Your task to perform on an android device: Play the last video I watched on Youtube Image 0: 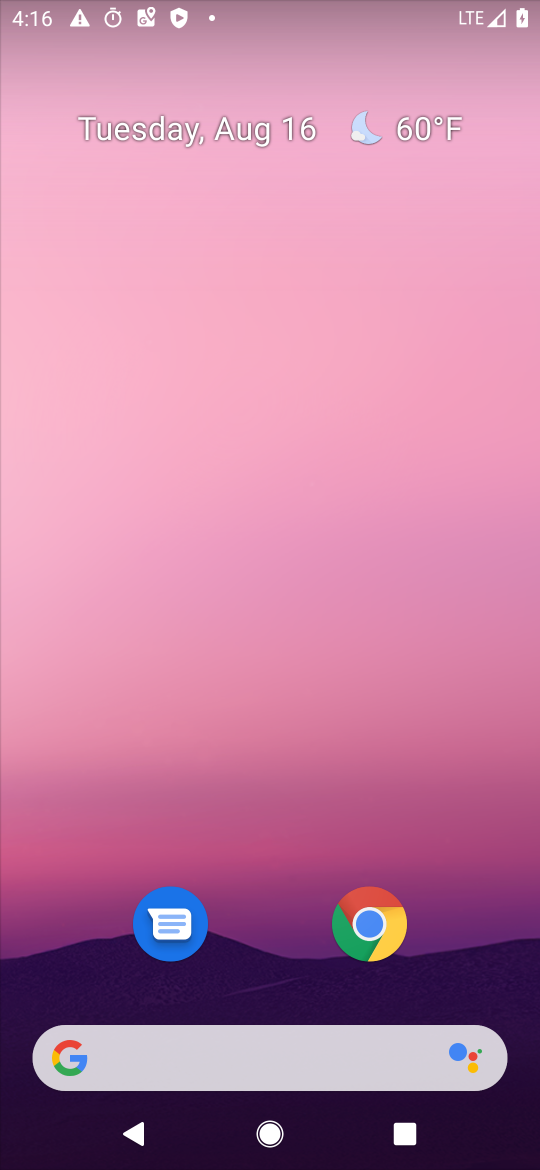
Step 0: drag from (256, 959) to (214, 169)
Your task to perform on an android device: Play the last video I watched on Youtube Image 1: 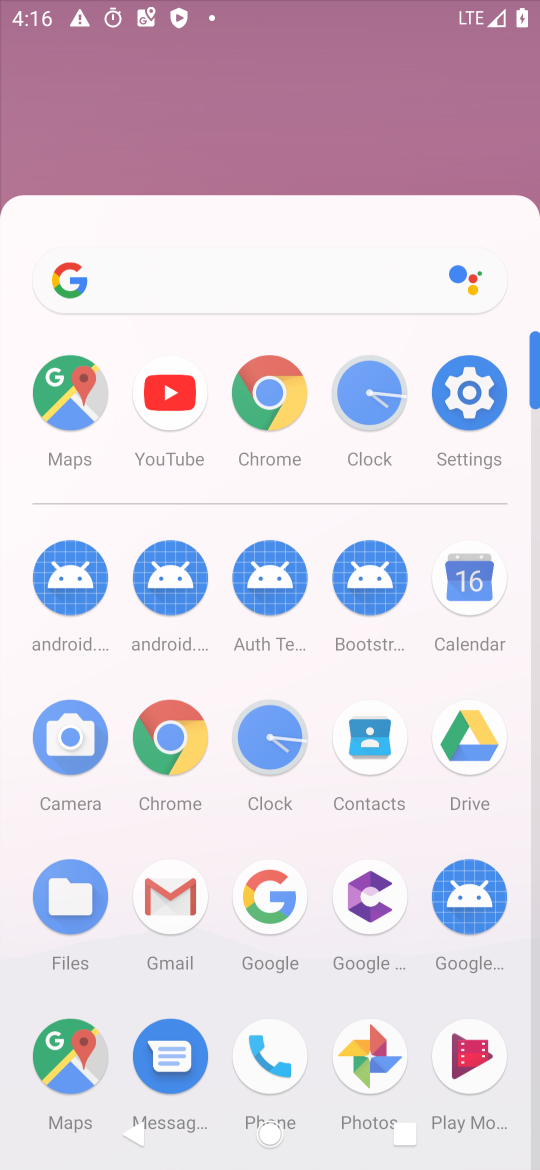
Step 1: click (214, 169)
Your task to perform on an android device: Play the last video I watched on Youtube Image 2: 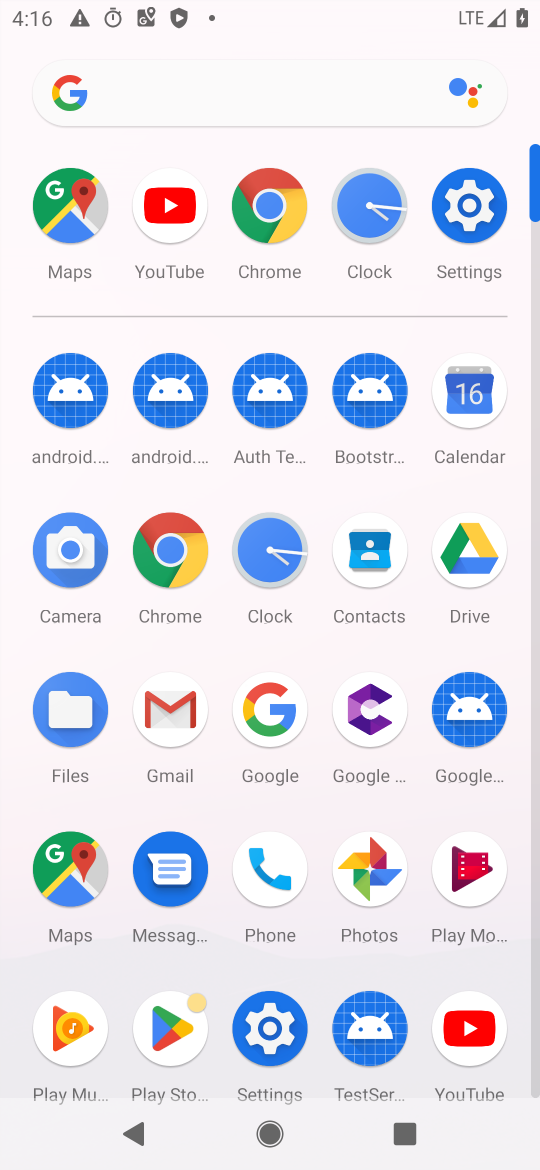
Step 2: click (187, 232)
Your task to perform on an android device: Play the last video I watched on Youtube Image 3: 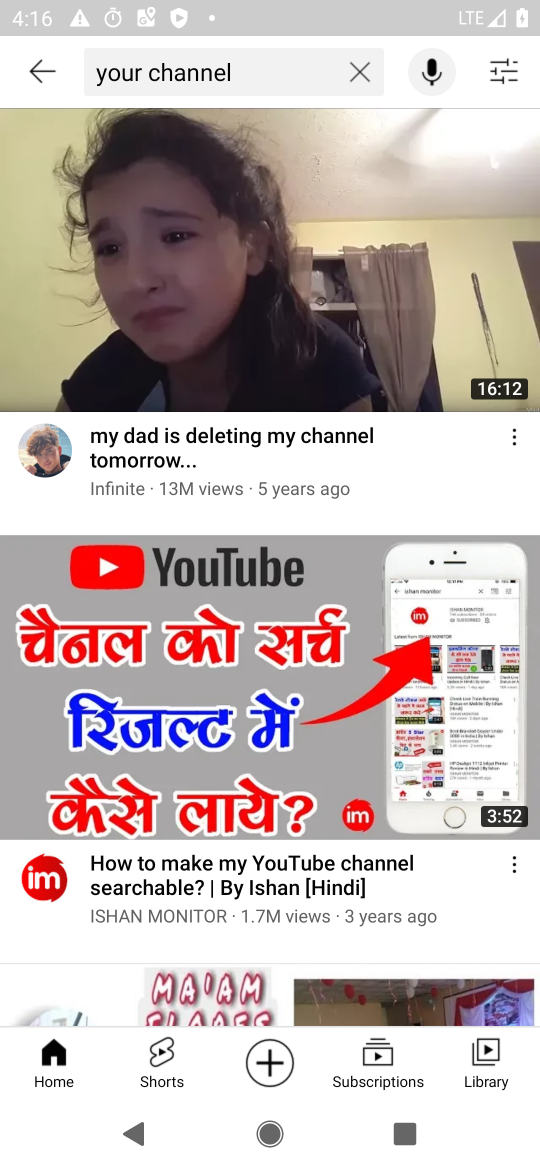
Step 3: click (491, 1062)
Your task to perform on an android device: Play the last video I watched on Youtube Image 4: 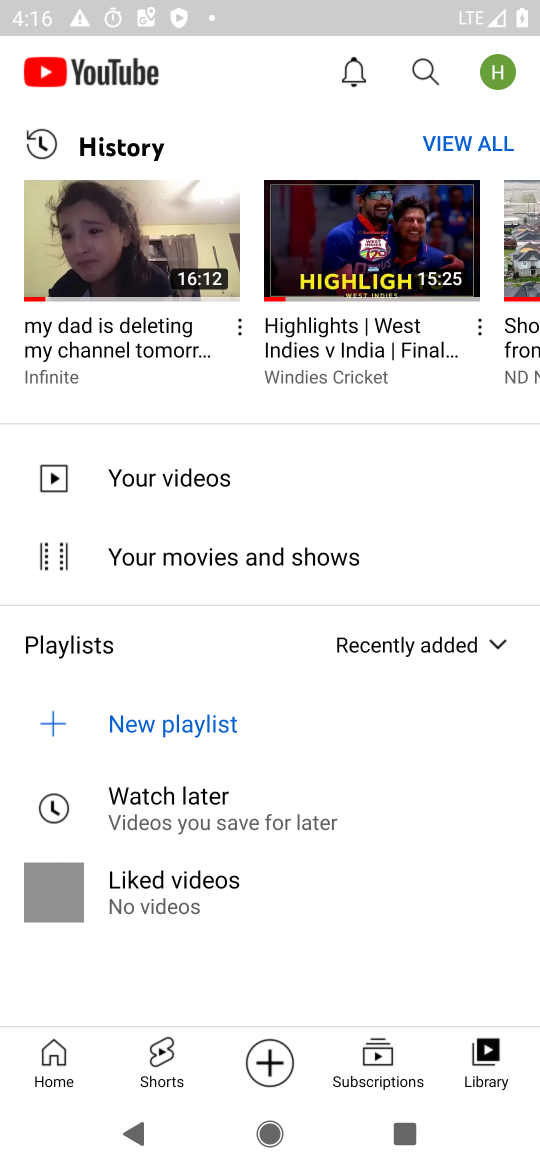
Step 4: click (124, 239)
Your task to perform on an android device: Play the last video I watched on Youtube Image 5: 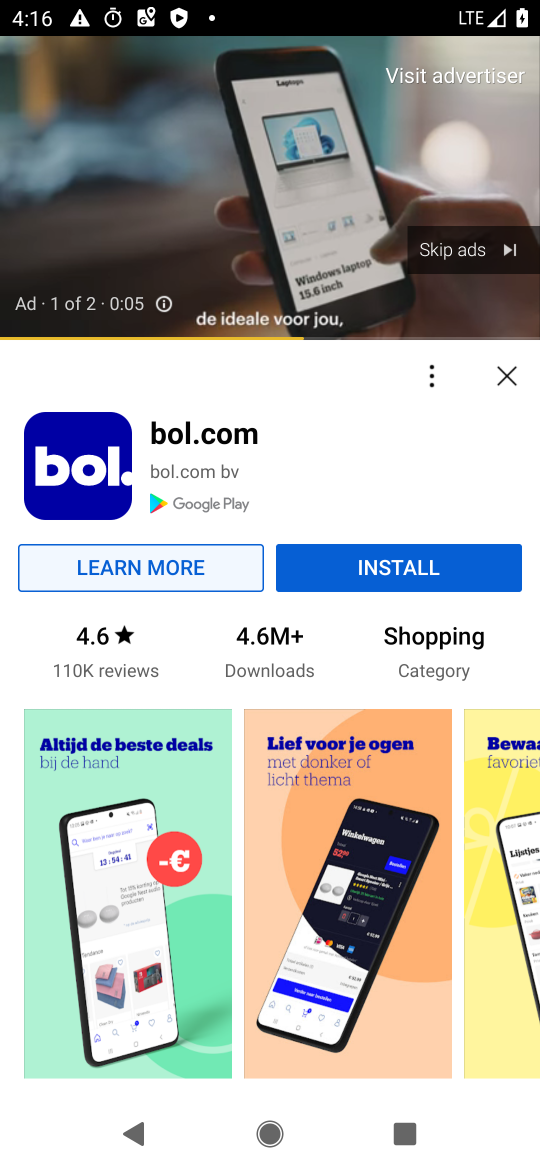
Step 5: click (480, 262)
Your task to perform on an android device: Play the last video I watched on Youtube Image 6: 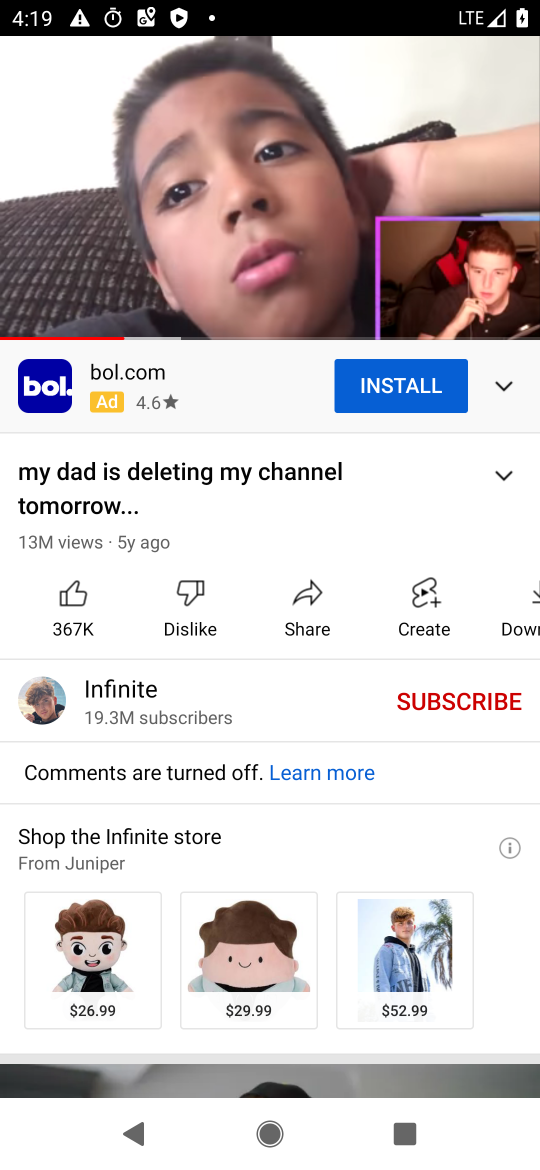
Step 6: task complete